Your task to perform on an android device: toggle translation in the chrome app Image 0: 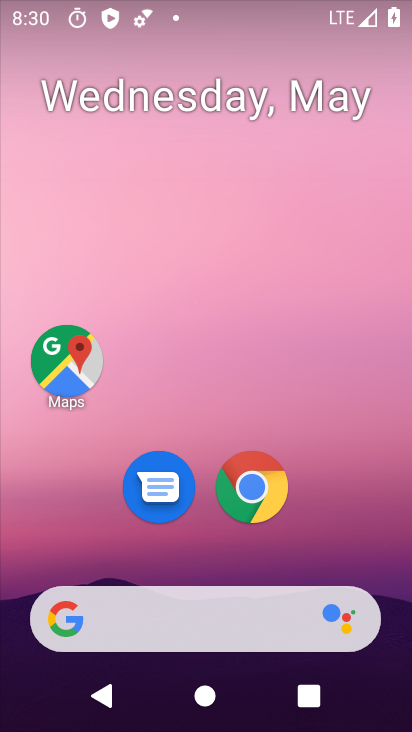
Step 0: click (251, 498)
Your task to perform on an android device: toggle translation in the chrome app Image 1: 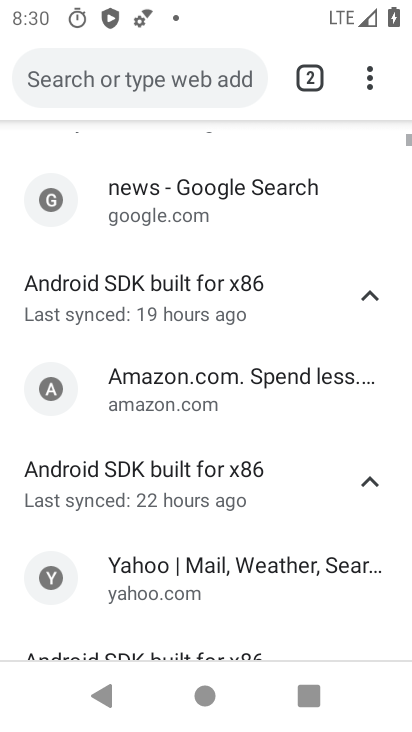
Step 1: drag from (369, 75) to (94, 536)
Your task to perform on an android device: toggle translation in the chrome app Image 2: 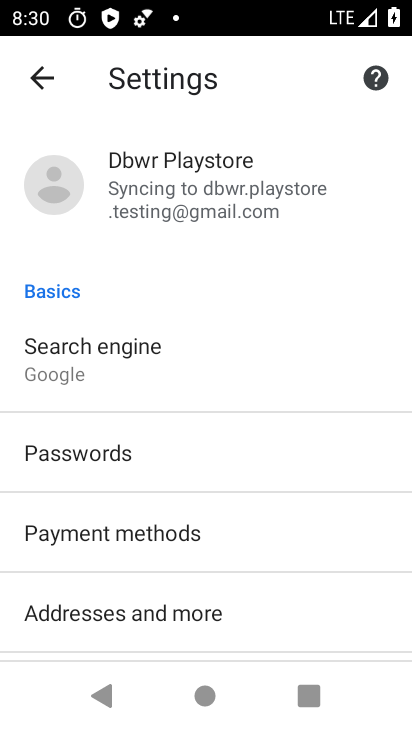
Step 2: drag from (249, 557) to (278, 208)
Your task to perform on an android device: toggle translation in the chrome app Image 3: 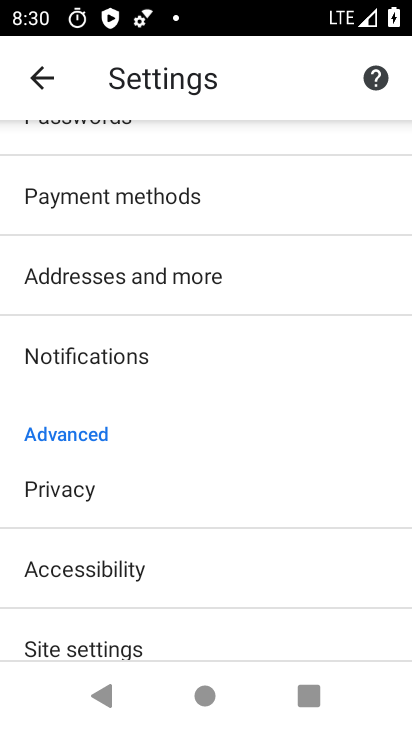
Step 3: drag from (264, 540) to (287, 217)
Your task to perform on an android device: toggle translation in the chrome app Image 4: 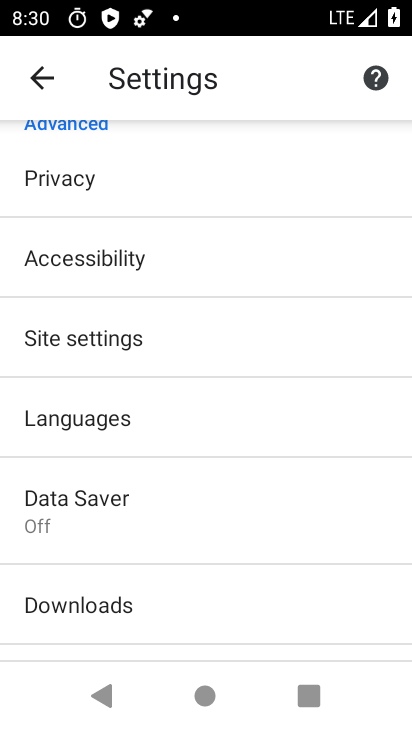
Step 4: click (185, 422)
Your task to perform on an android device: toggle translation in the chrome app Image 5: 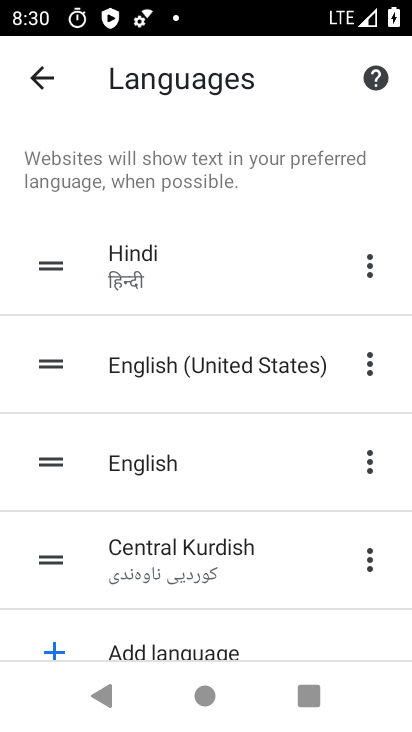
Step 5: drag from (234, 613) to (268, 225)
Your task to perform on an android device: toggle translation in the chrome app Image 6: 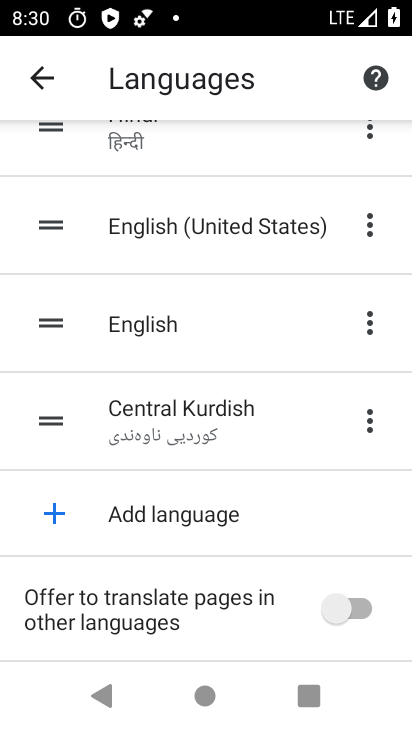
Step 6: click (354, 610)
Your task to perform on an android device: toggle translation in the chrome app Image 7: 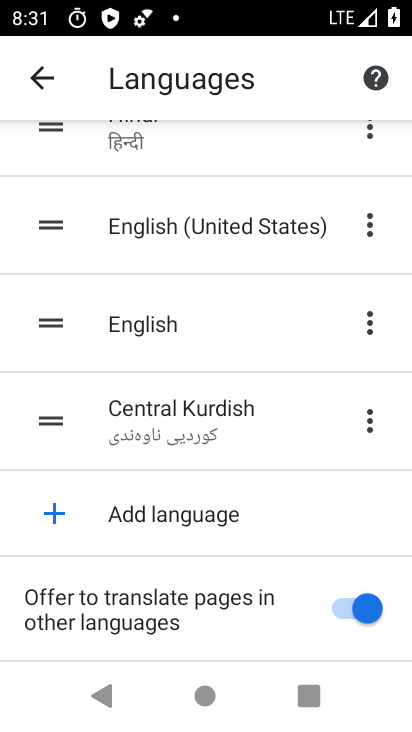
Step 7: task complete